Your task to perform on an android device: turn off notifications in google photos Image 0: 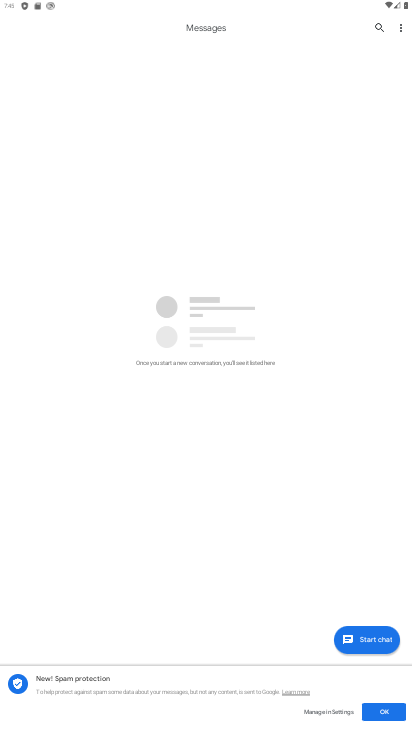
Step 0: drag from (224, 406) to (227, 103)
Your task to perform on an android device: turn off notifications in google photos Image 1: 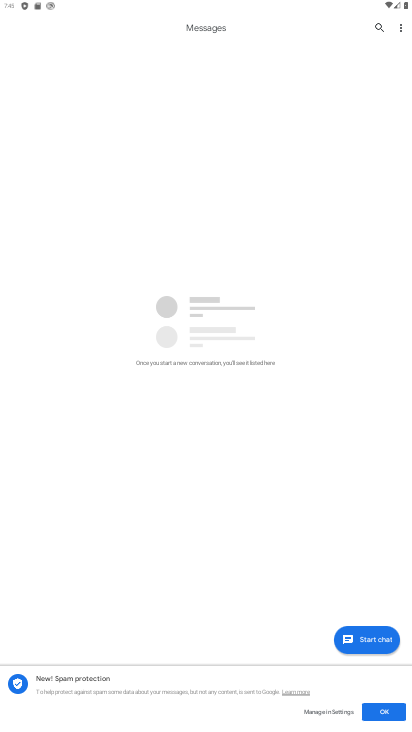
Step 1: drag from (240, 505) to (245, 240)
Your task to perform on an android device: turn off notifications in google photos Image 2: 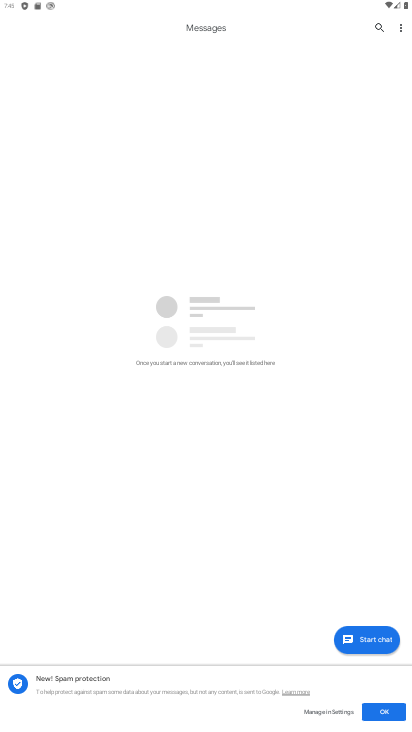
Step 2: press home button
Your task to perform on an android device: turn off notifications in google photos Image 3: 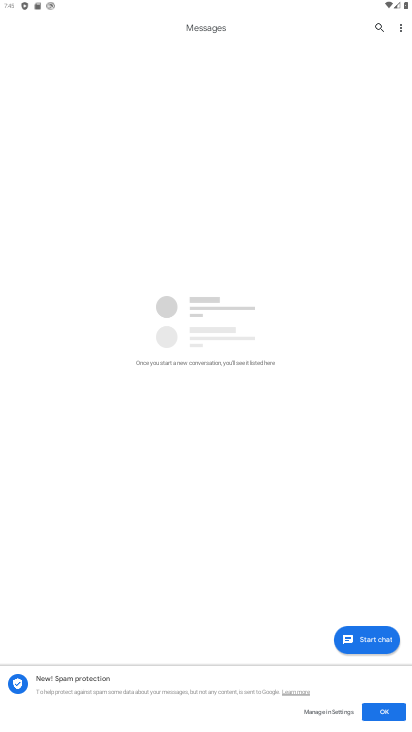
Step 3: press home button
Your task to perform on an android device: turn off notifications in google photos Image 4: 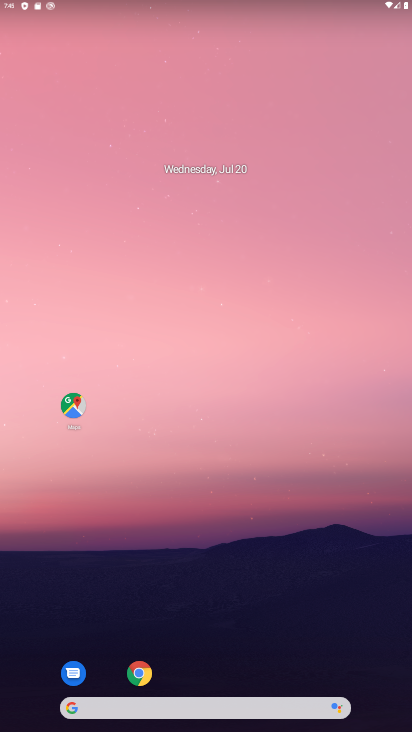
Step 4: drag from (239, 594) to (259, 98)
Your task to perform on an android device: turn off notifications in google photos Image 5: 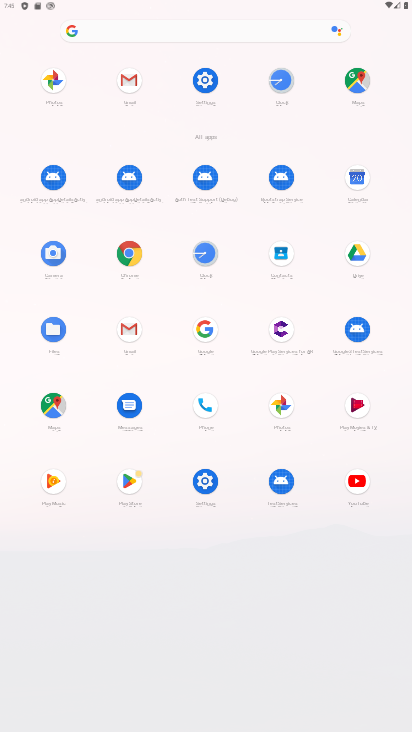
Step 5: click (283, 400)
Your task to perform on an android device: turn off notifications in google photos Image 6: 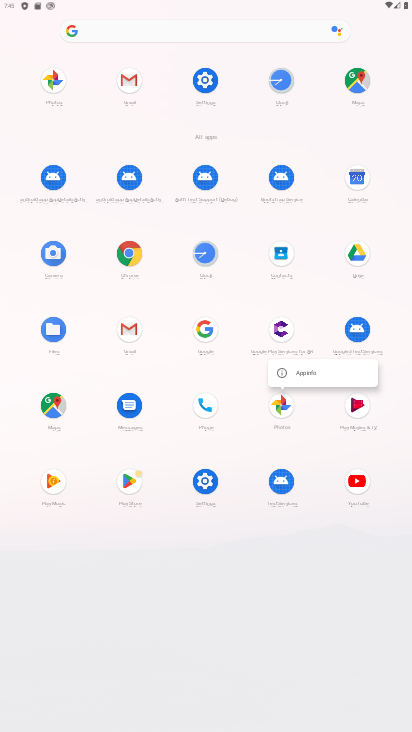
Step 6: click (305, 372)
Your task to perform on an android device: turn off notifications in google photos Image 7: 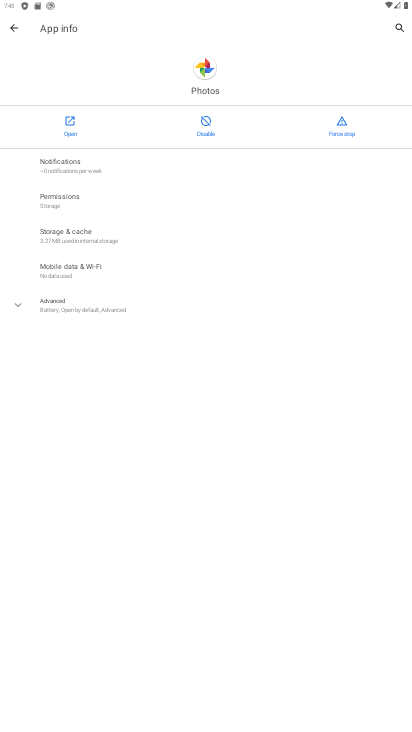
Step 7: click (72, 135)
Your task to perform on an android device: turn off notifications in google photos Image 8: 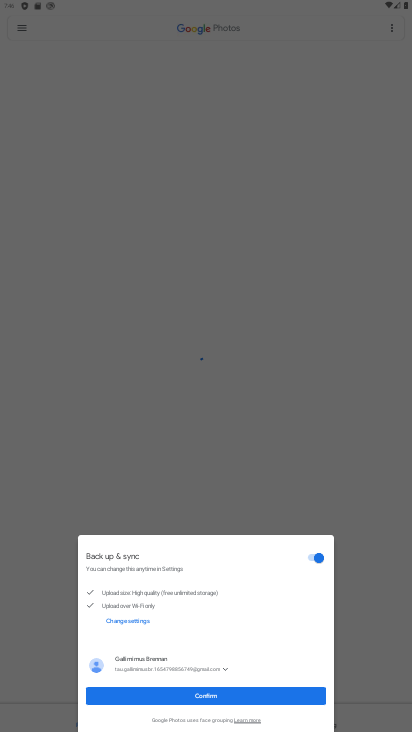
Step 8: click (182, 695)
Your task to perform on an android device: turn off notifications in google photos Image 9: 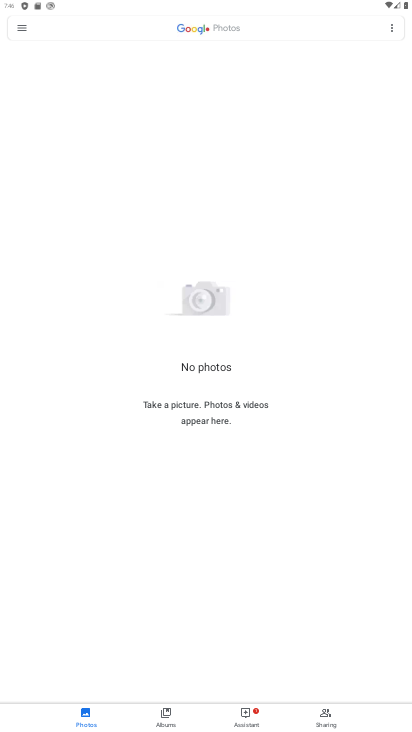
Step 9: click (24, 27)
Your task to perform on an android device: turn off notifications in google photos Image 10: 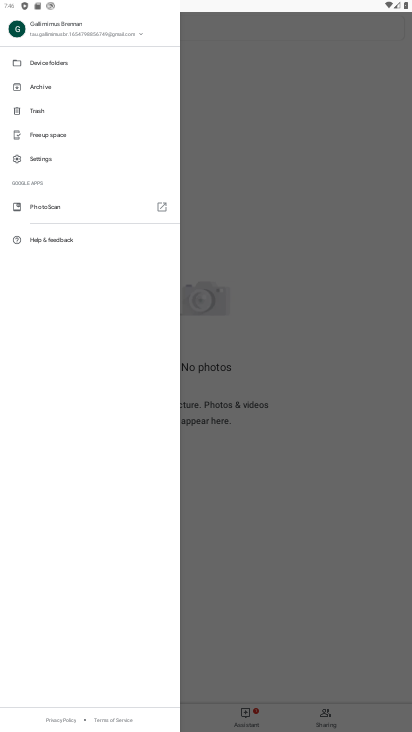
Step 10: click (45, 153)
Your task to perform on an android device: turn off notifications in google photos Image 11: 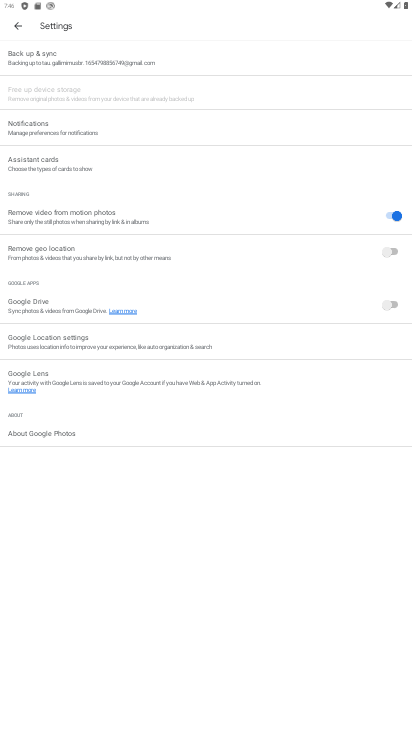
Step 11: click (91, 116)
Your task to perform on an android device: turn off notifications in google photos Image 12: 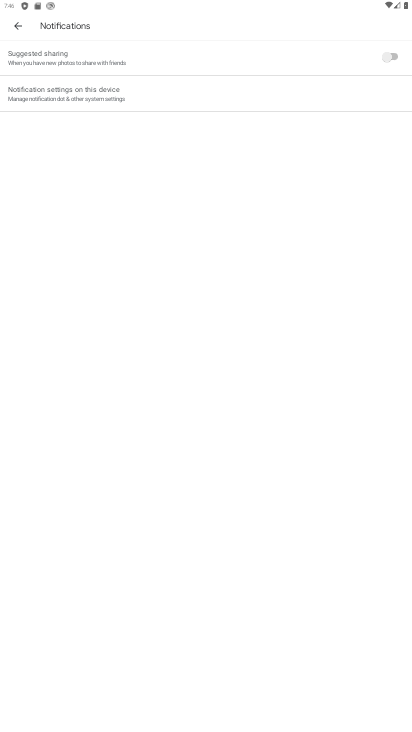
Step 12: click (132, 95)
Your task to perform on an android device: turn off notifications in google photos Image 13: 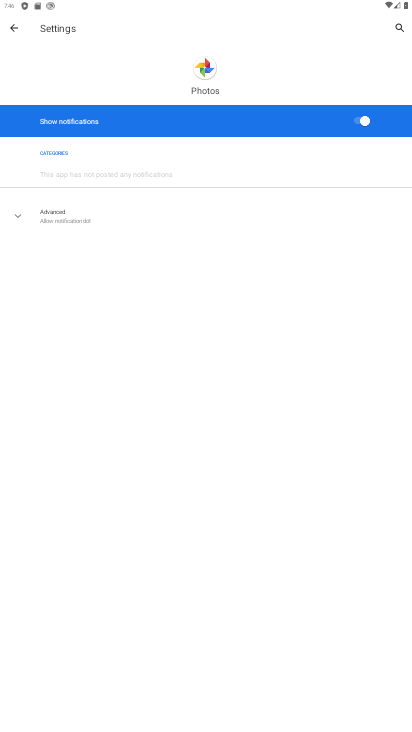
Step 13: click (334, 115)
Your task to perform on an android device: turn off notifications in google photos Image 14: 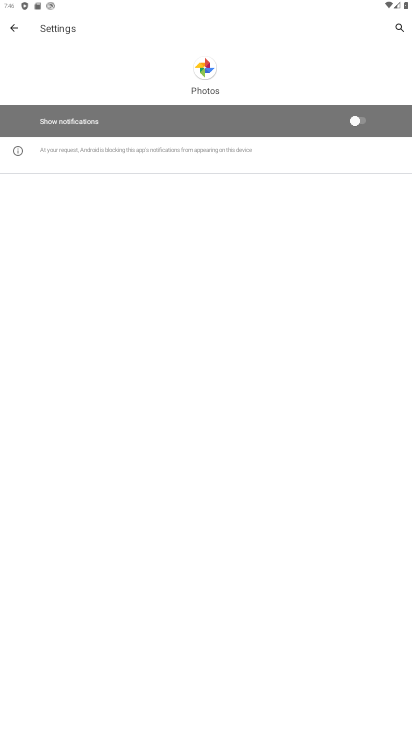
Step 14: task complete